Your task to perform on an android device: delete browsing data in the chrome app Image 0: 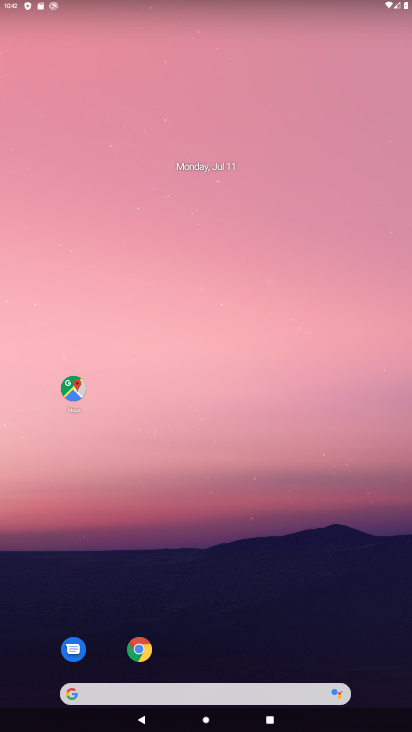
Step 0: drag from (302, 630) to (270, 104)
Your task to perform on an android device: delete browsing data in the chrome app Image 1: 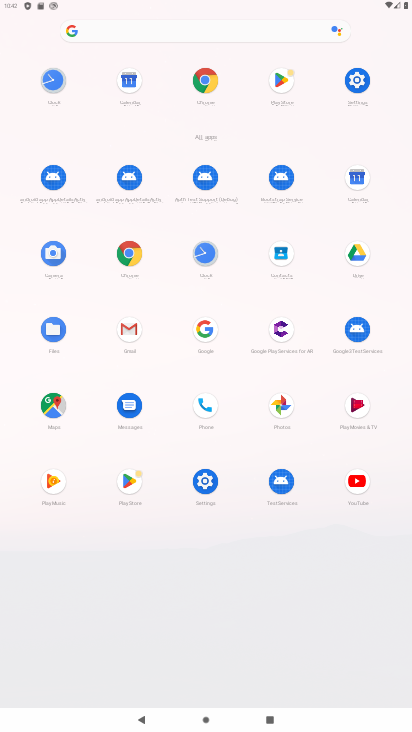
Step 1: click (133, 251)
Your task to perform on an android device: delete browsing data in the chrome app Image 2: 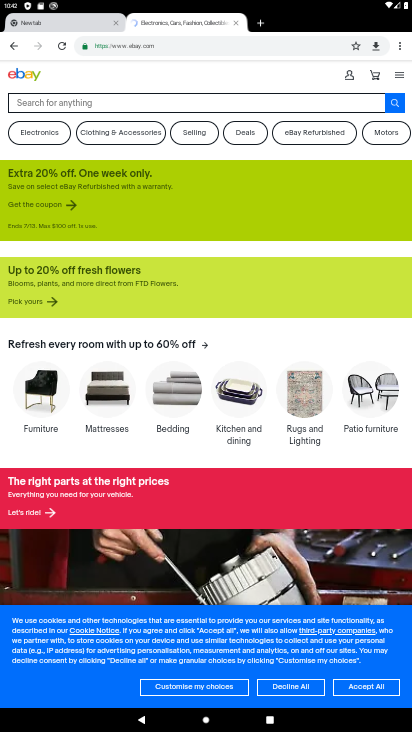
Step 2: drag from (398, 42) to (303, 132)
Your task to perform on an android device: delete browsing data in the chrome app Image 3: 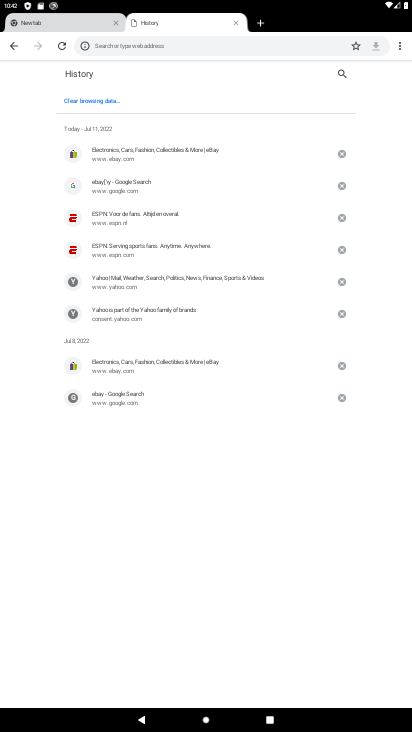
Step 3: click (103, 98)
Your task to perform on an android device: delete browsing data in the chrome app Image 4: 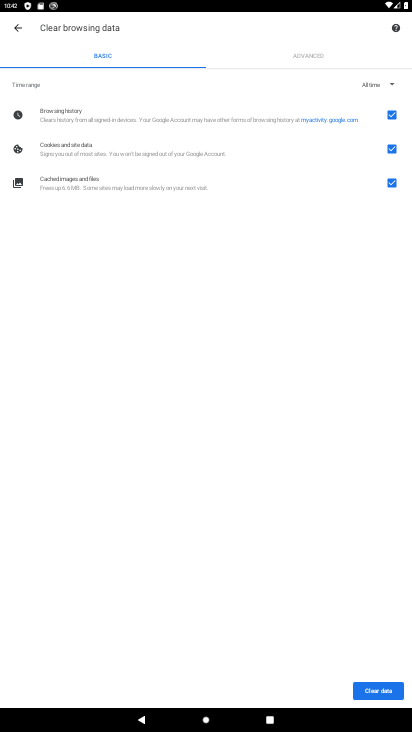
Step 4: click (384, 81)
Your task to perform on an android device: delete browsing data in the chrome app Image 5: 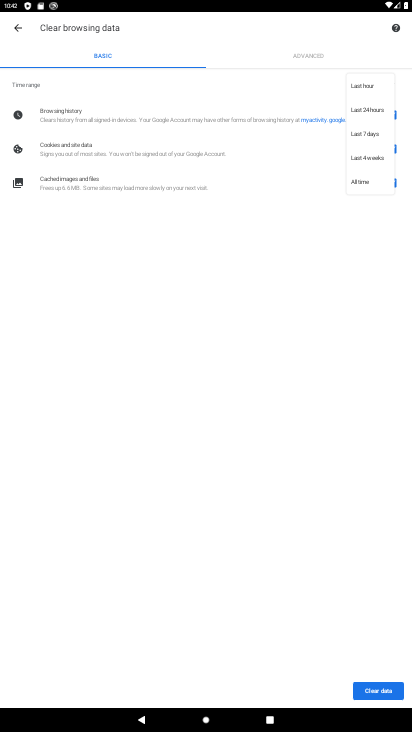
Step 5: click (360, 180)
Your task to perform on an android device: delete browsing data in the chrome app Image 6: 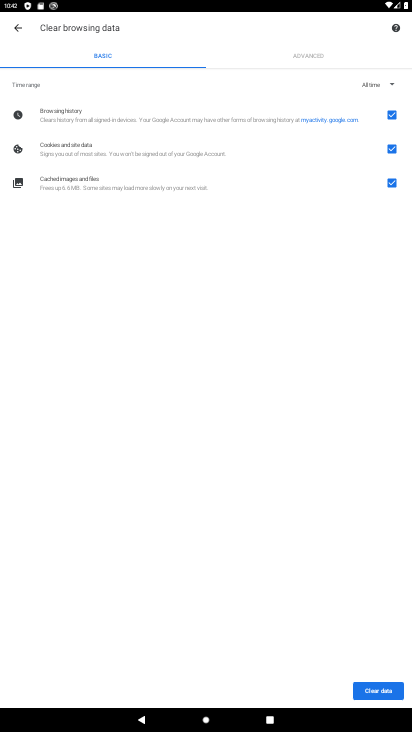
Step 6: click (381, 686)
Your task to perform on an android device: delete browsing data in the chrome app Image 7: 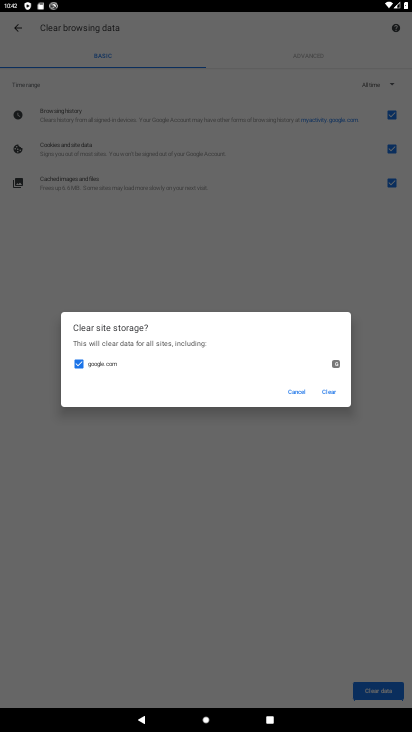
Step 7: click (328, 388)
Your task to perform on an android device: delete browsing data in the chrome app Image 8: 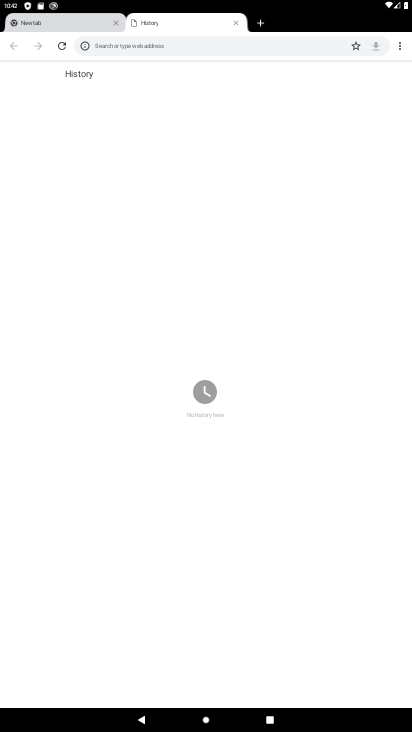
Step 8: task complete